Your task to perform on an android device: turn notification dots off Image 0: 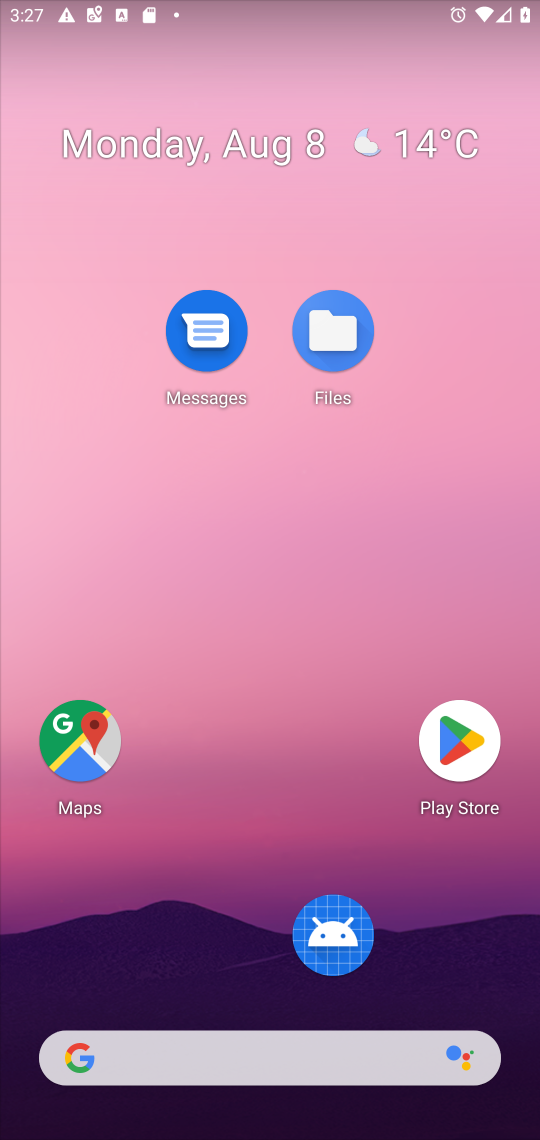
Step 0: drag from (332, 1049) to (377, 41)
Your task to perform on an android device: turn notification dots off Image 1: 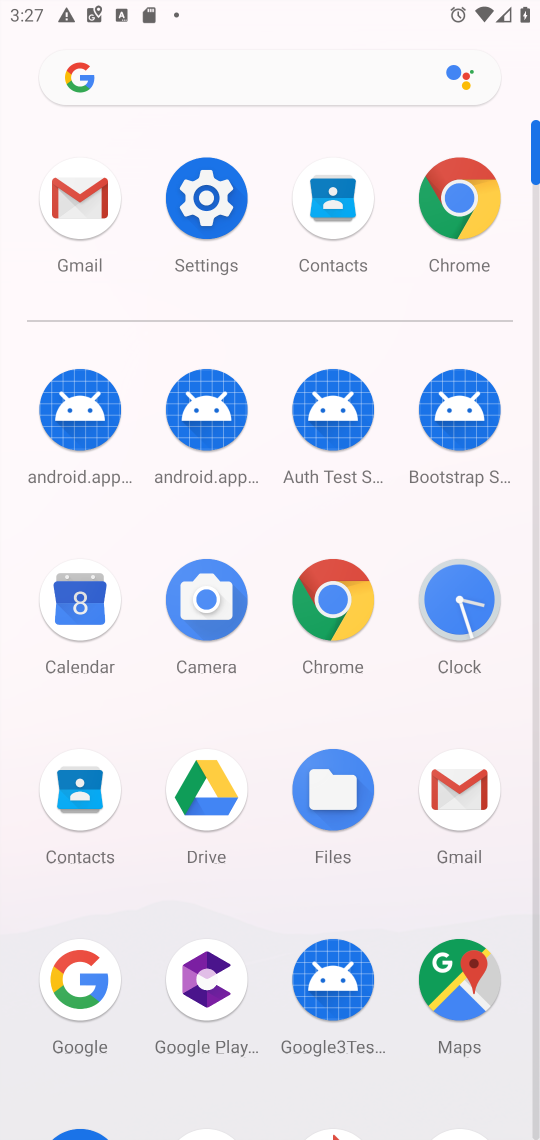
Step 1: click (181, 206)
Your task to perform on an android device: turn notification dots off Image 2: 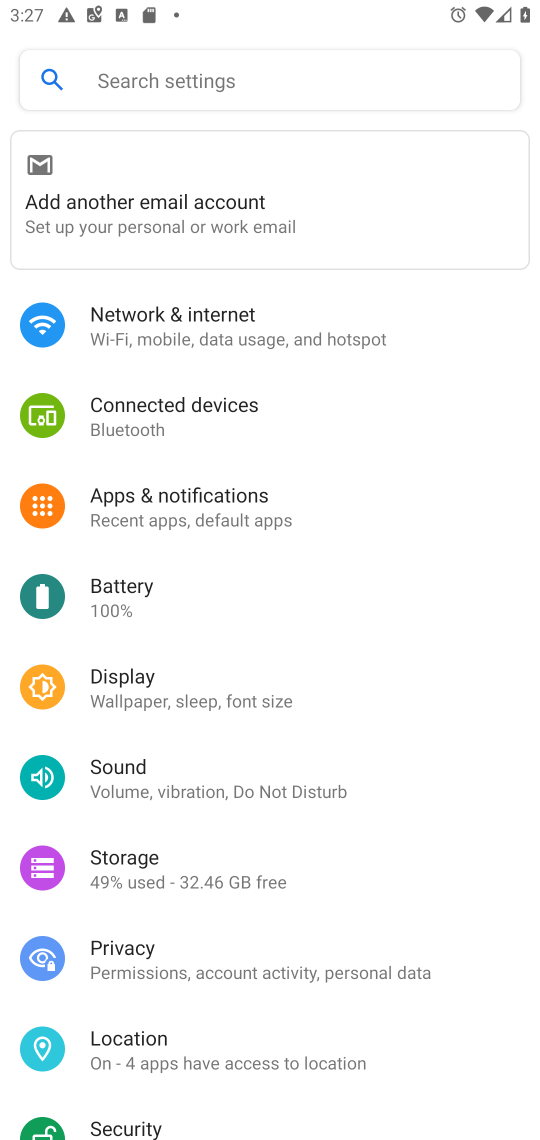
Step 2: click (176, 494)
Your task to perform on an android device: turn notification dots off Image 3: 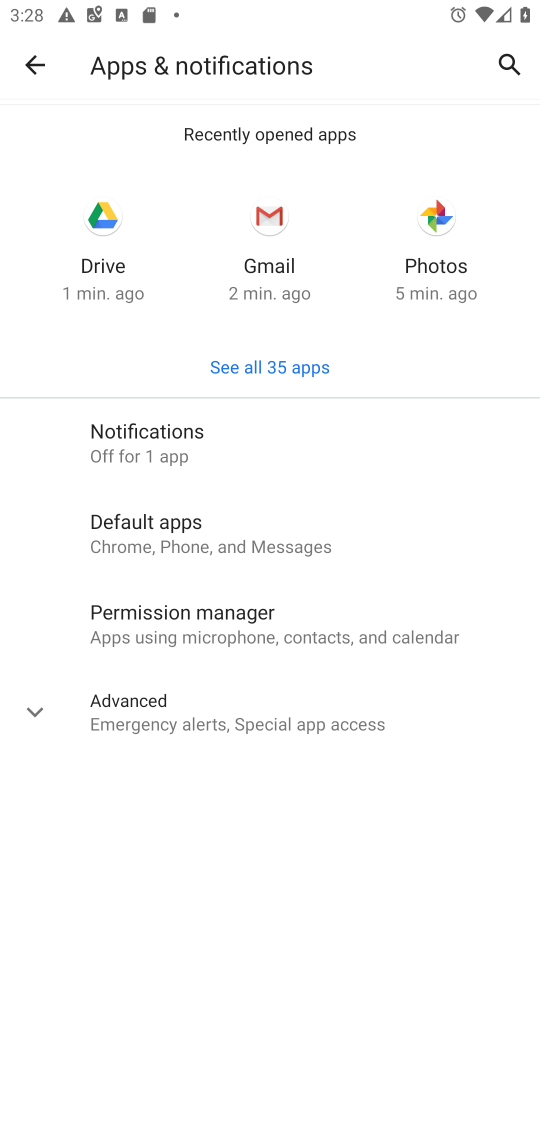
Step 3: click (195, 441)
Your task to perform on an android device: turn notification dots off Image 4: 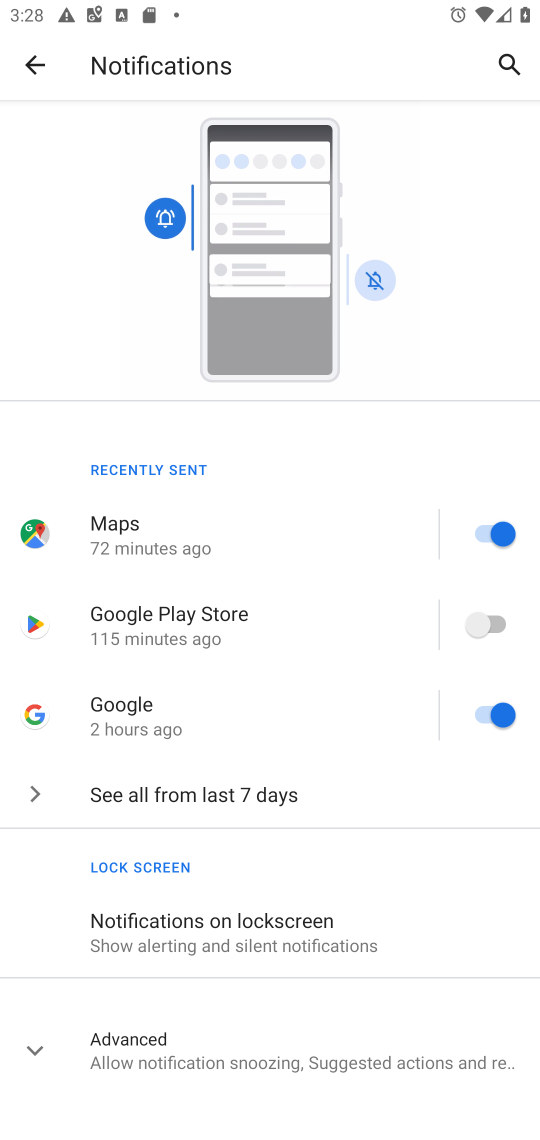
Step 4: click (236, 1075)
Your task to perform on an android device: turn notification dots off Image 5: 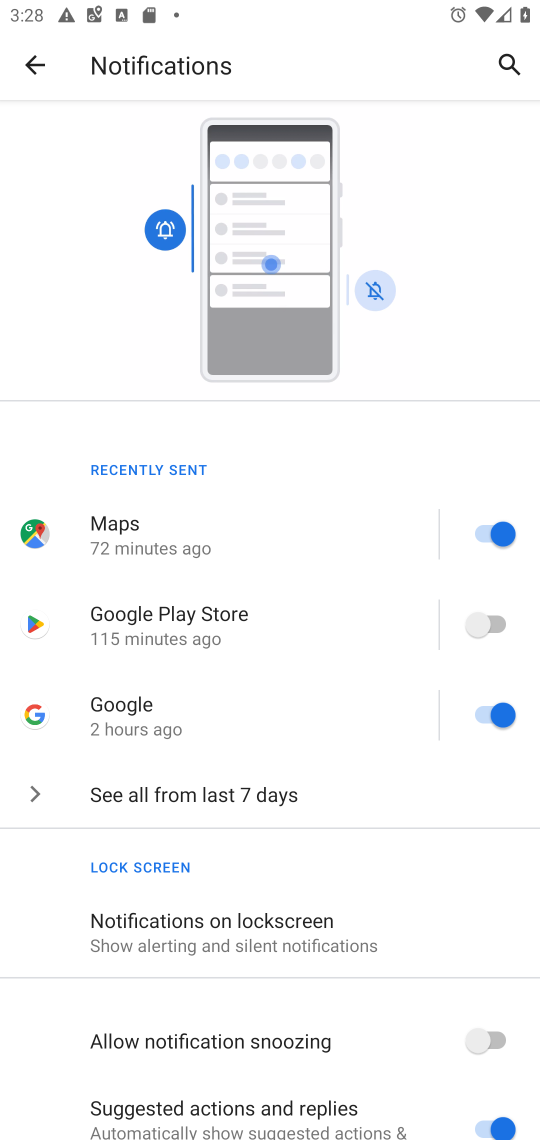
Step 5: drag from (377, 1058) to (352, 553)
Your task to perform on an android device: turn notification dots off Image 6: 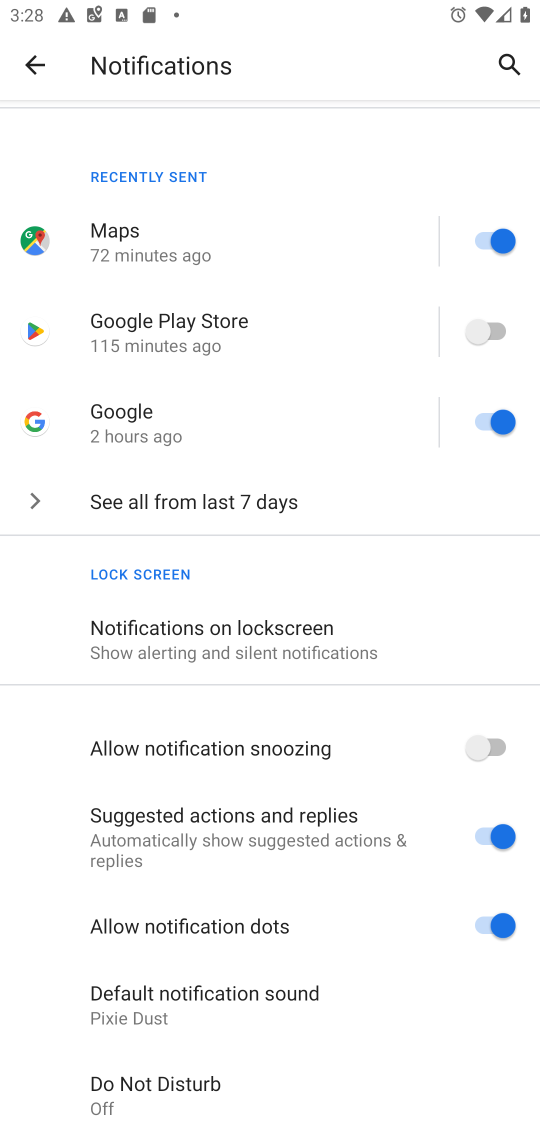
Step 6: click (481, 917)
Your task to perform on an android device: turn notification dots off Image 7: 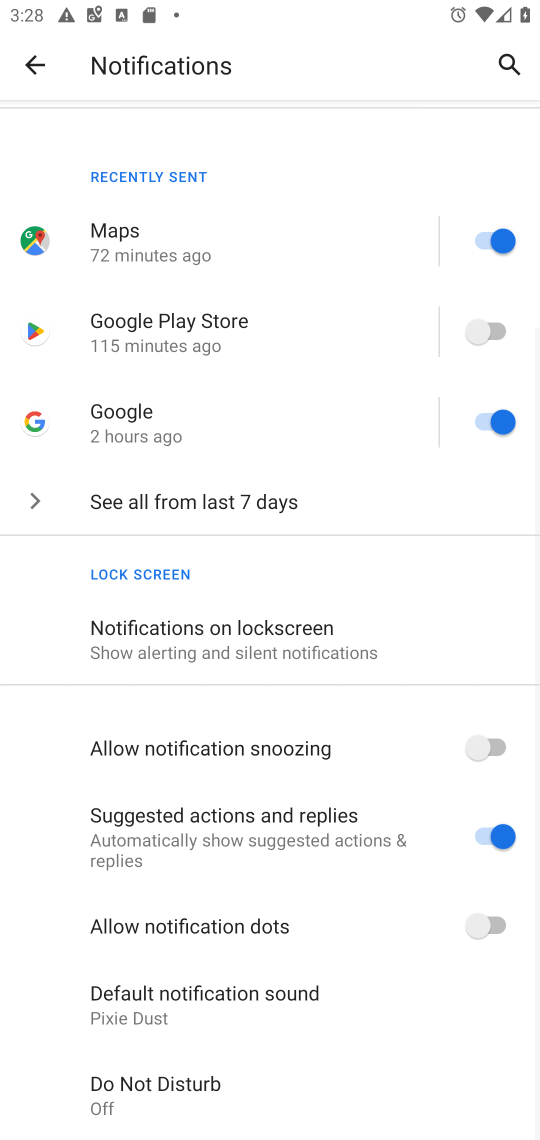
Step 7: task complete